Your task to perform on an android device: What's the weather going to be tomorrow? Image 0: 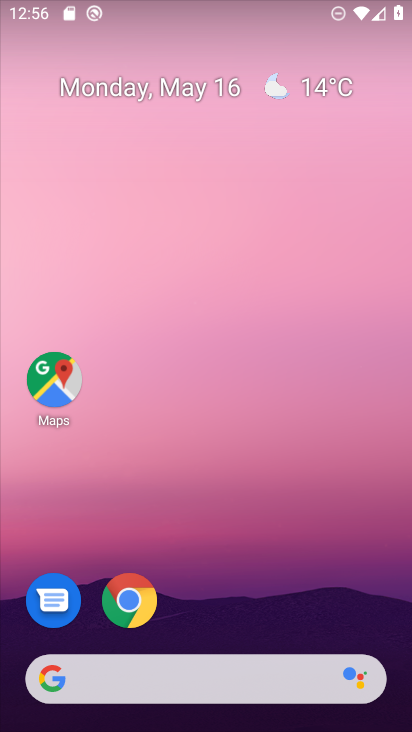
Step 0: press home button
Your task to perform on an android device: What's the weather going to be tomorrow? Image 1: 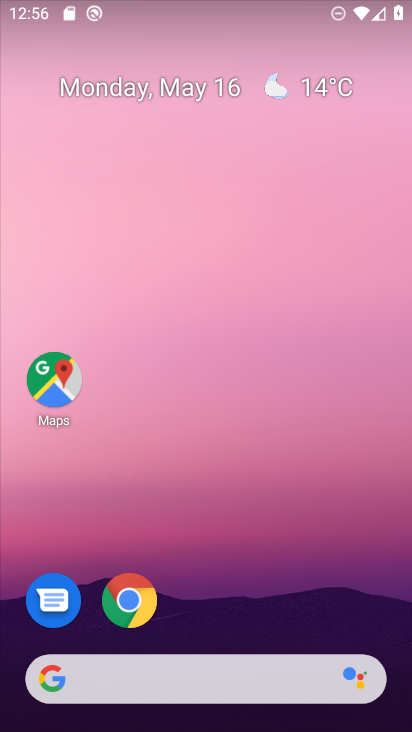
Step 1: click (325, 83)
Your task to perform on an android device: What's the weather going to be tomorrow? Image 2: 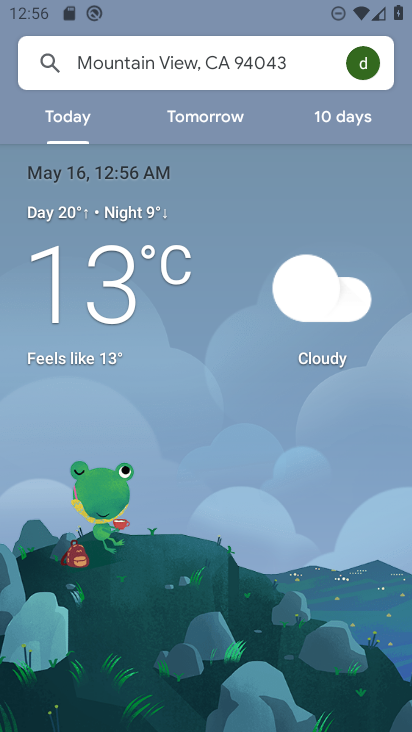
Step 2: click (212, 123)
Your task to perform on an android device: What's the weather going to be tomorrow? Image 3: 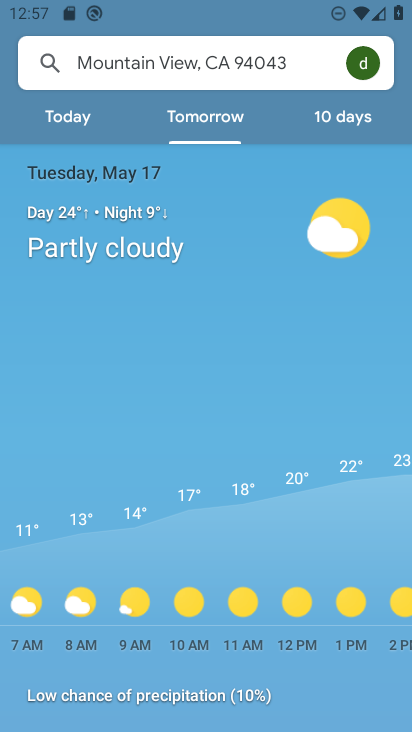
Step 3: drag from (195, 475) to (214, 235)
Your task to perform on an android device: What's the weather going to be tomorrow? Image 4: 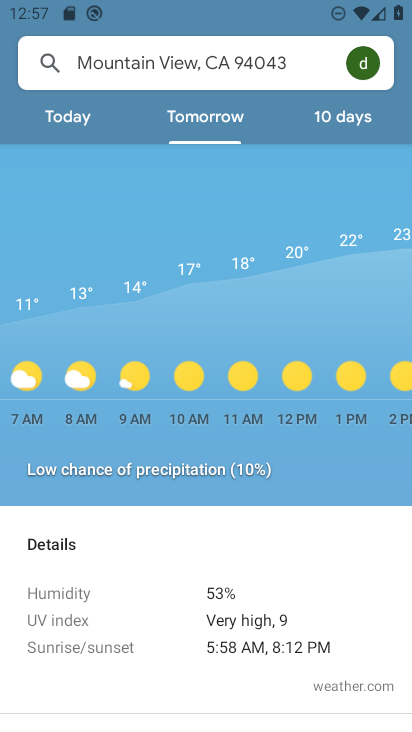
Step 4: drag from (344, 546) to (169, 542)
Your task to perform on an android device: What's the weather going to be tomorrow? Image 5: 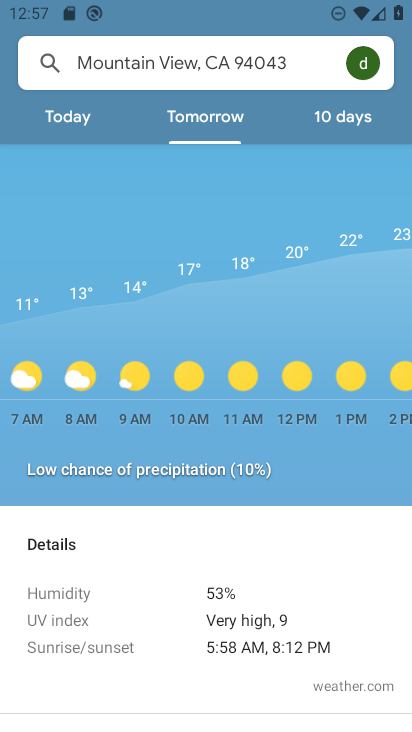
Step 5: drag from (351, 385) to (74, 365)
Your task to perform on an android device: What's the weather going to be tomorrow? Image 6: 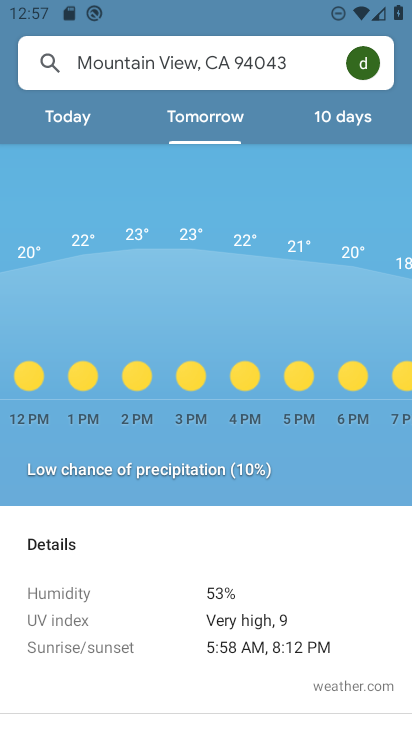
Step 6: drag from (389, 391) to (93, 381)
Your task to perform on an android device: What's the weather going to be tomorrow? Image 7: 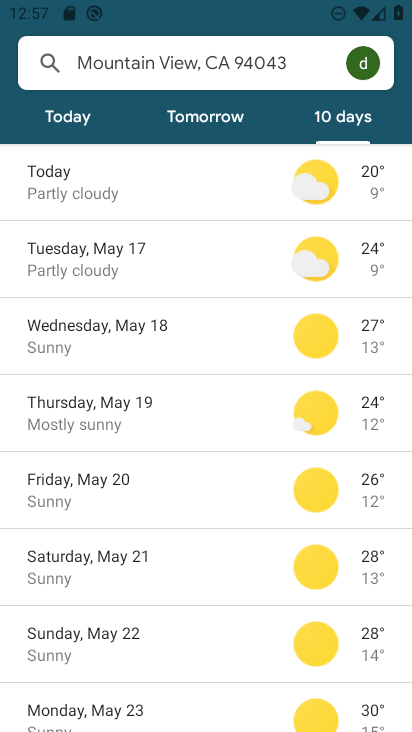
Step 7: click (199, 121)
Your task to perform on an android device: What's the weather going to be tomorrow? Image 8: 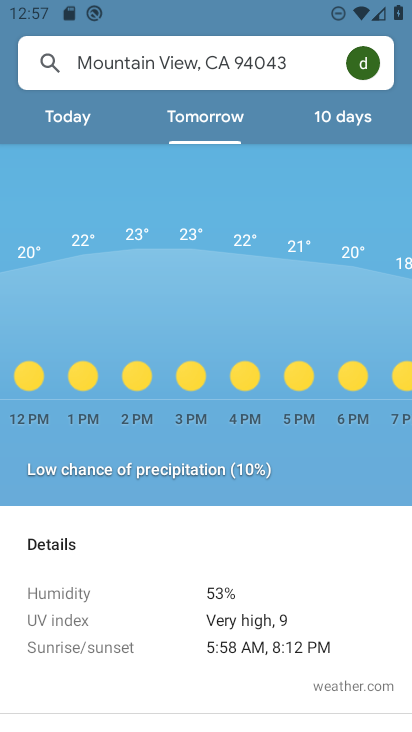
Step 8: drag from (51, 382) to (110, 377)
Your task to perform on an android device: What's the weather going to be tomorrow? Image 9: 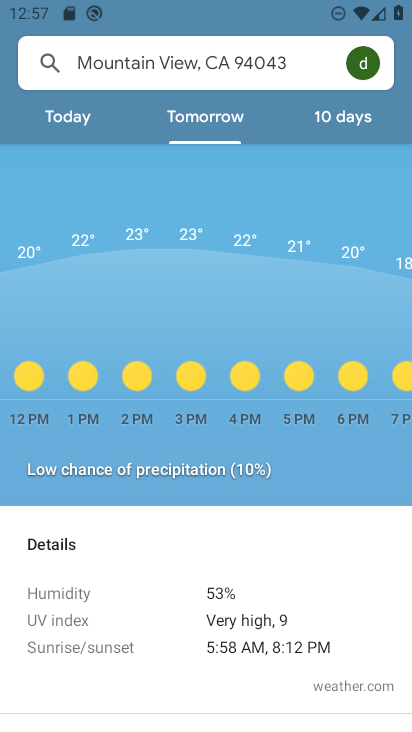
Step 9: drag from (123, 418) to (282, 427)
Your task to perform on an android device: What's the weather going to be tomorrow? Image 10: 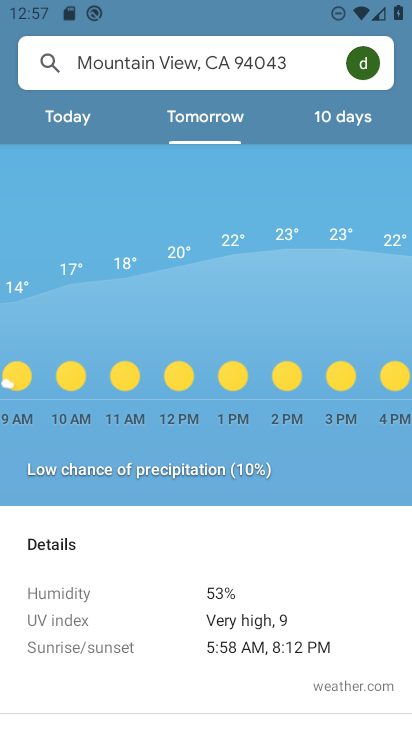
Step 10: drag from (372, 414) to (278, 409)
Your task to perform on an android device: What's the weather going to be tomorrow? Image 11: 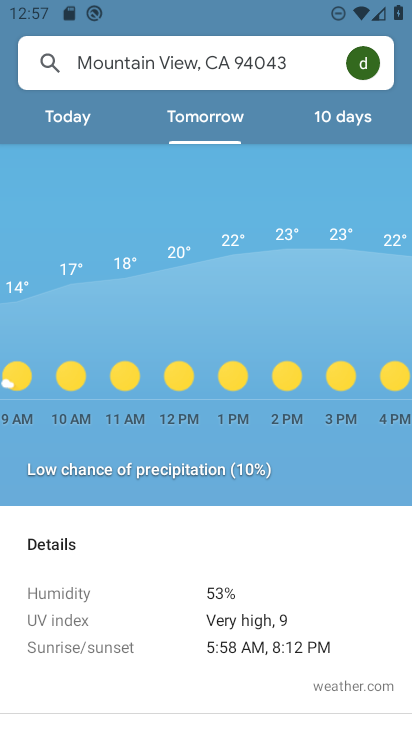
Step 11: click (357, 416)
Your task to perform on an android device: What's the weather going to be tomorrow? Image 12: 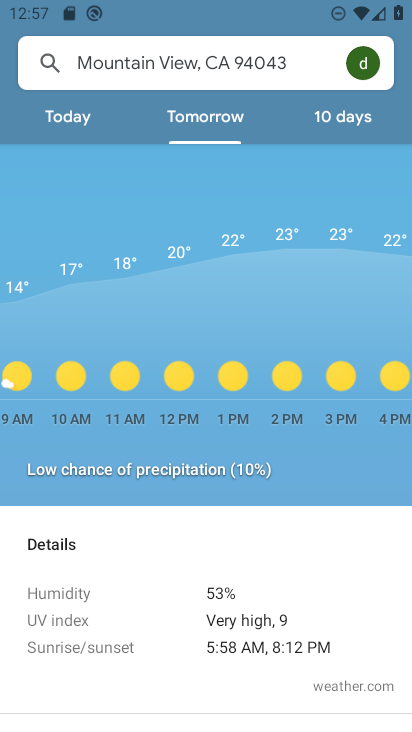
Step 12: task complete